Your task to perform on an android device: open device folders in google photos Image 0: 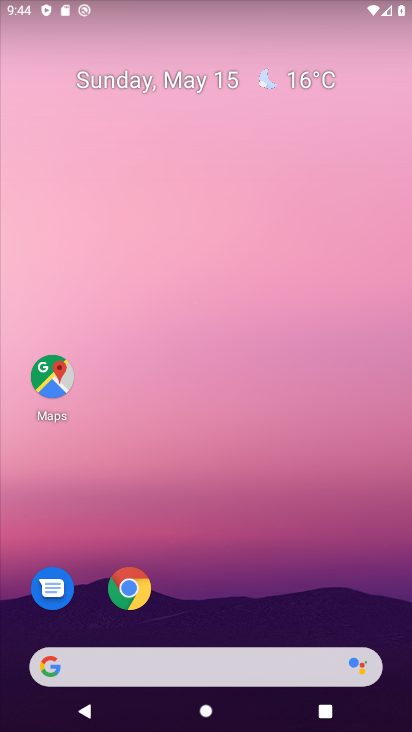
Step 0: drag from (209, 623) to (289, 76)
Your task to perform on an android device: open device folders in google photos Image 1: 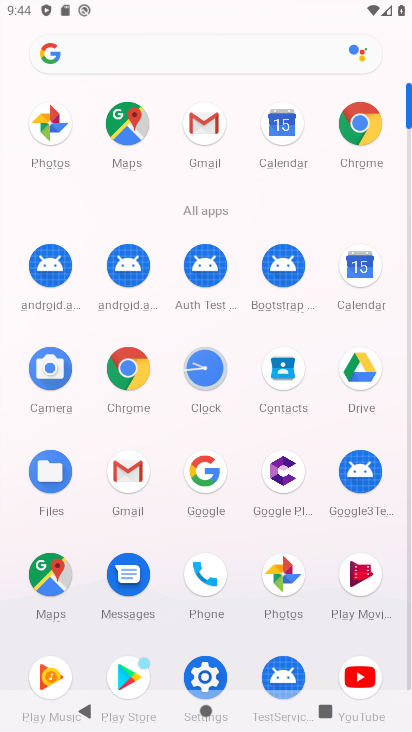
Step 1: click (46, 143)
Your task to perform on an android device: open device folders in google photos Image 2: 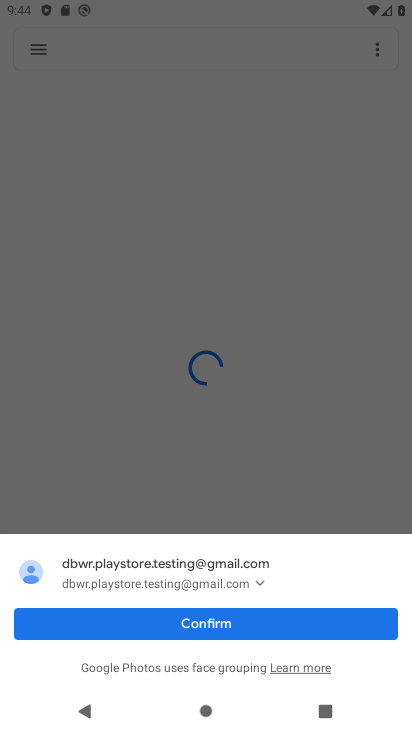
Step 2: click (32, 55)
Your task to perform on an android device: open device folders in google photos Image 3: 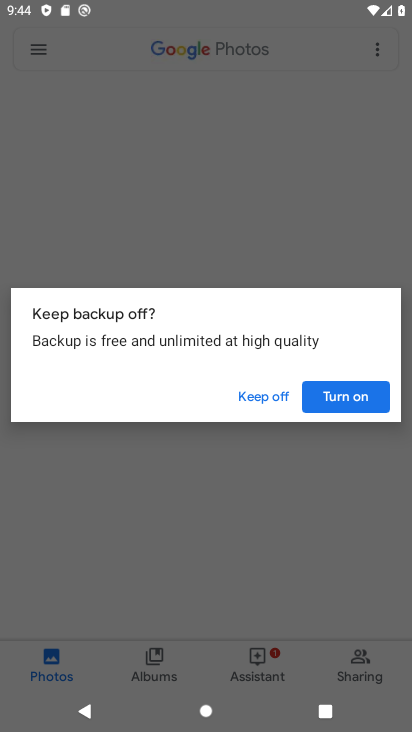
Step 3: click (326, 395)
Your task to perform on an android device: open device folders in google photos Image 4: 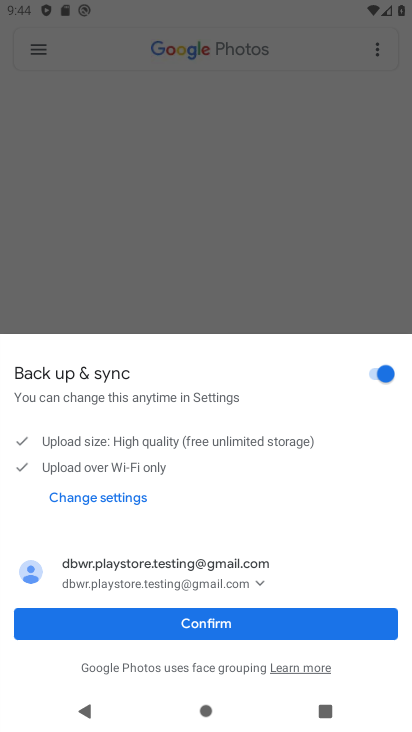
Step 4: click (180, 623)
Your task to perform on an android device: open device folders in google photos Image 5: 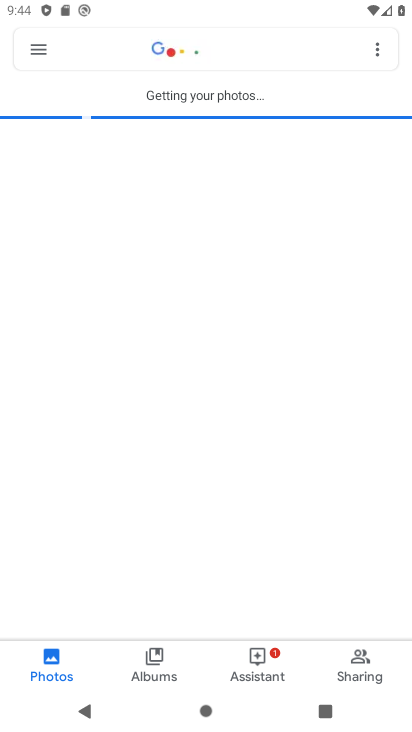
Step 5: click (39, 49)
Your task to perform on an android device: open device folders in google photos Image 6: 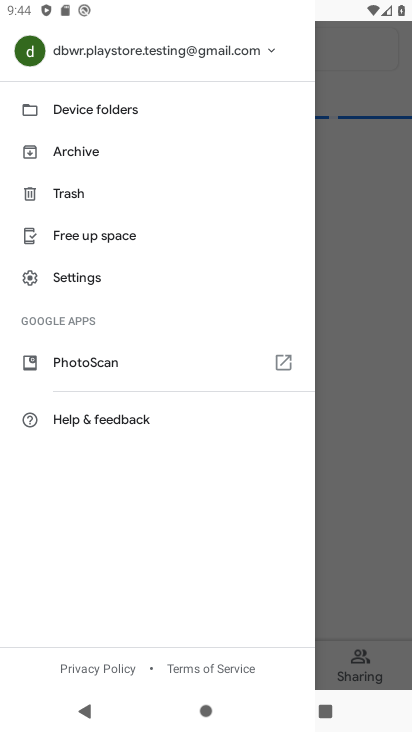
Step 6: click (73, 117)
Your task to perform on an android device: open device folders in google photos Image 7: 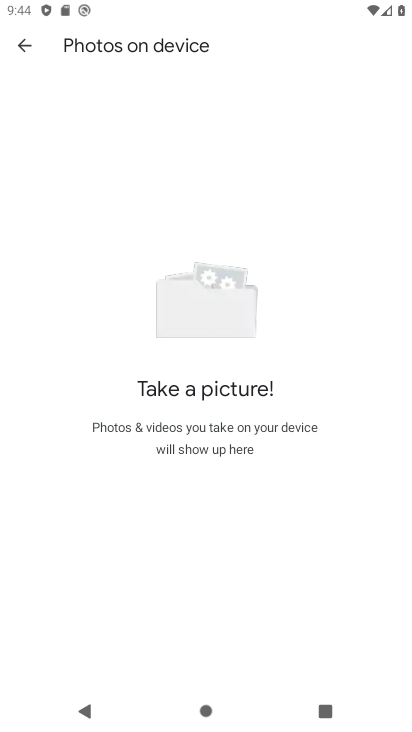
Step 7: task complete